Your task to perform on an android device: Go to privacy settings Image 0: 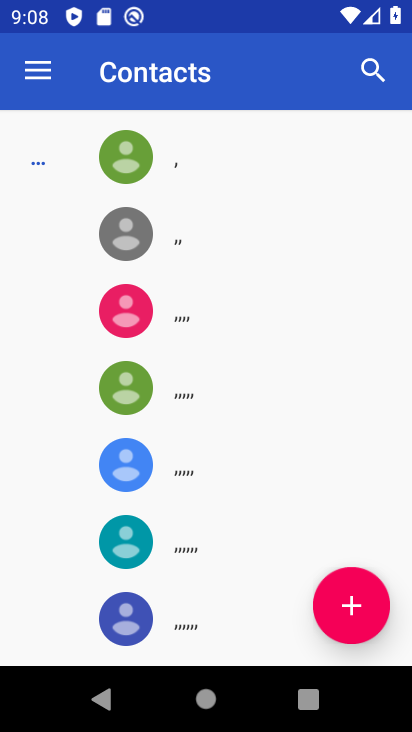
Step 0: press back button
Your task to perform on an android device: Go to privacy settings Image 1: 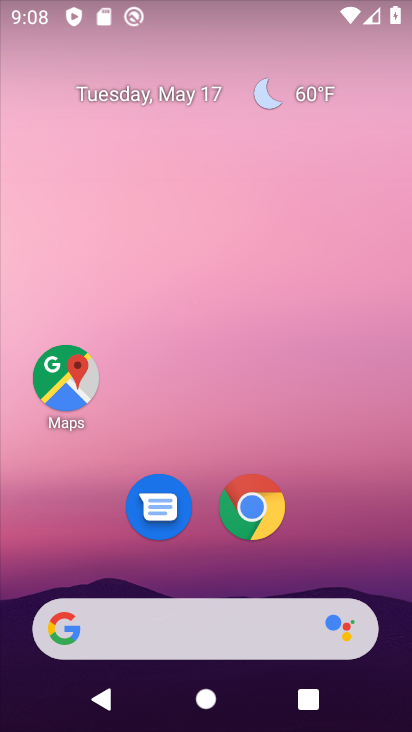
Step 1: drag from (259, 685) to (258, 292)
Your task to perform on an android device: Go to privacy settings Image 2: 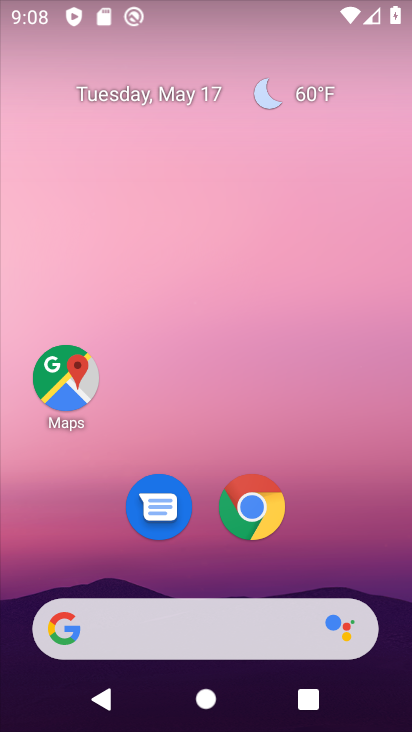
Step 2: drag from (208, 693) to (169, 252)
Your task to perform on an android device: Go to privacy settings Image 3: 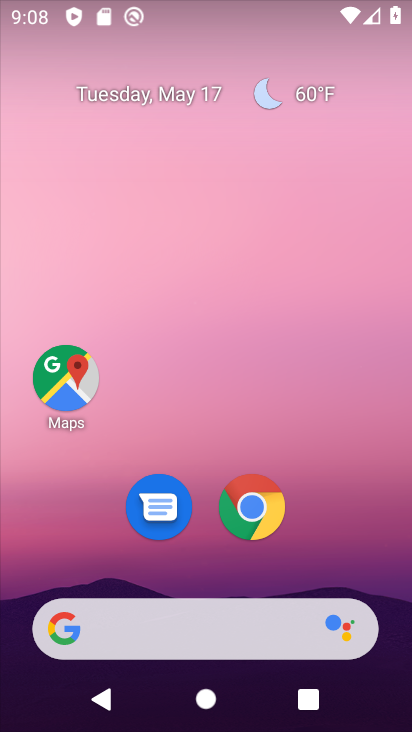
Step 3: drag from (254, 539) to (184, 147)
Your task to perform on an android device: Go to privacy settings Image 4: 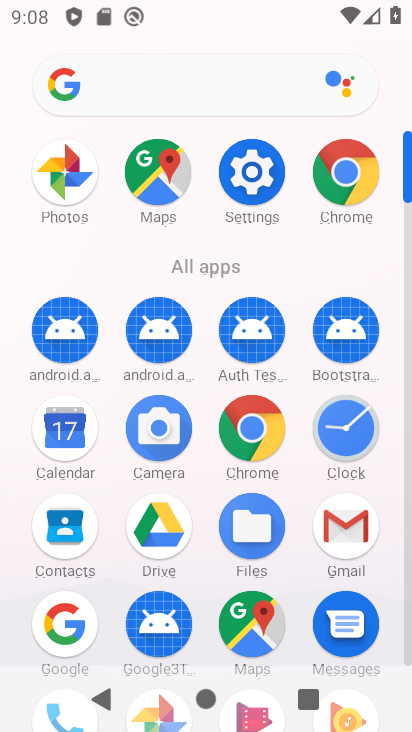
Step 4: click (243, 171)
Your task to perform on an android device: Go to privacy settings Image 5: 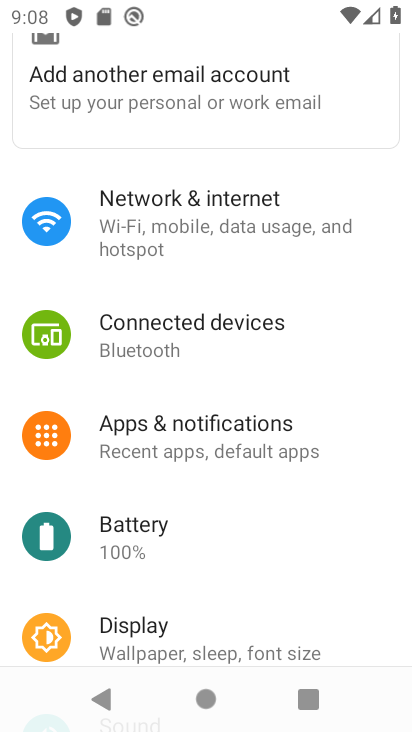
Step 5: drag from (189, 553) to (106, 256)
Your task to perform on an android device: Go to privacy settings Image 6: 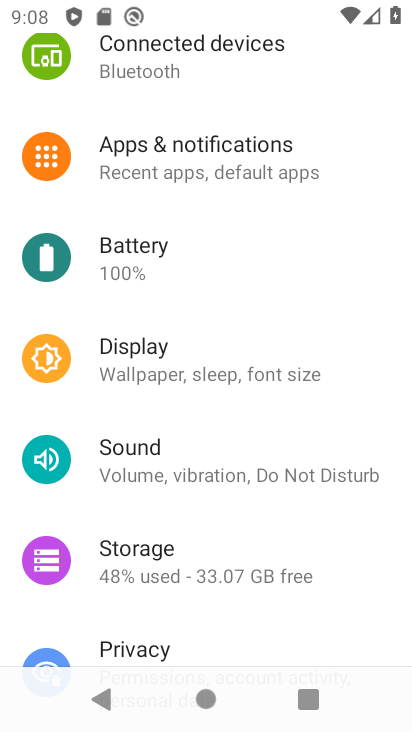
Step 6: drag from (195, 444) to (191, 247)
Your task to perform on an android device: Go to privacy settings Image 7: 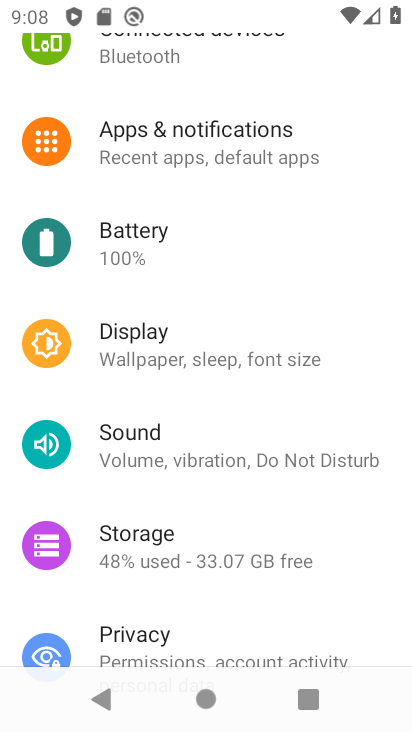
Step 7: drag from (254, 485) to (272, 231)
Your task to perform on an android device: Go to privacy settings Image 8: 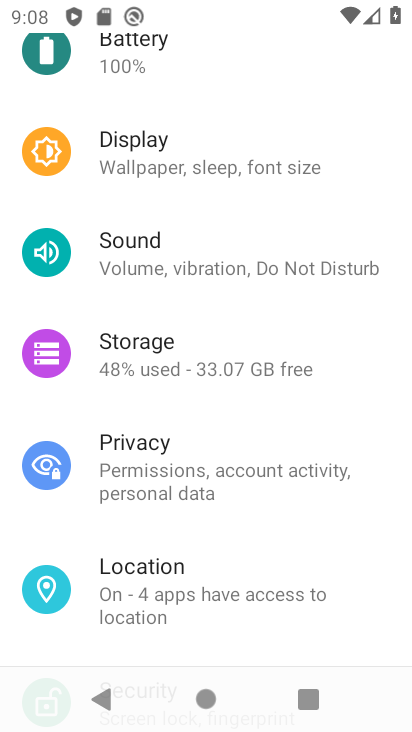
Step 8: click (128, 465)
Your task to perform on an android device: Go to privacy settings Image 9: 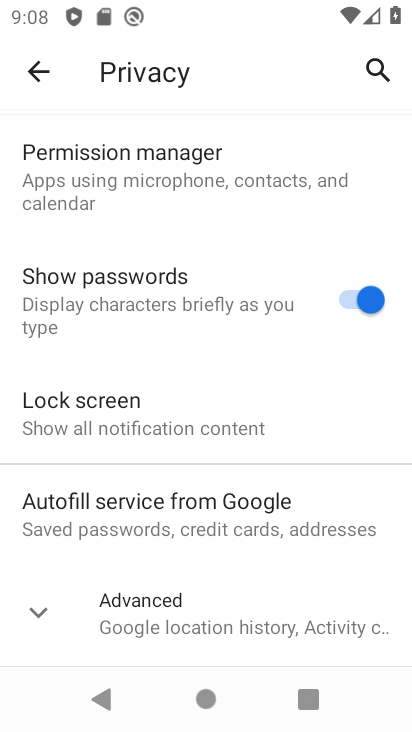
Step 9: task complete